Your task to perform on an android device: turn off notifications settings in the gmail app Image 0: 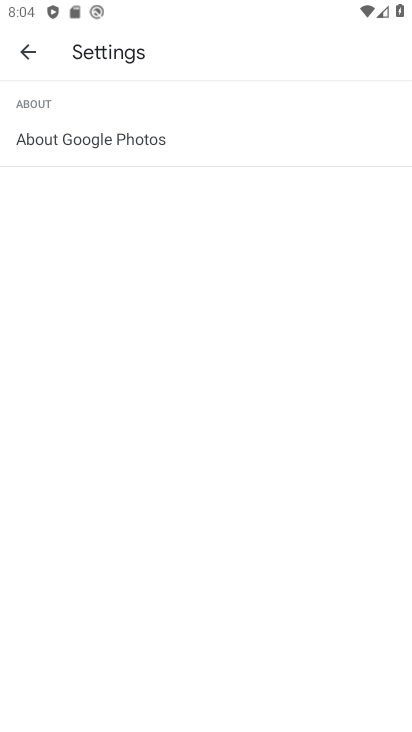
Step 0: drag from (194, 639) to (198, 600)
Your task to perform on an android device: turn off notifications settings in the gmail app Image 1: 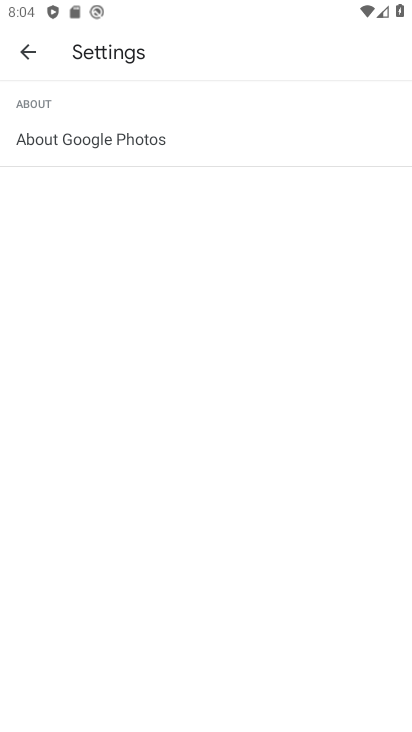
Step 1: press home button
Your task to perform on an android device: turn off notifications settings in the gmail app Image 2: 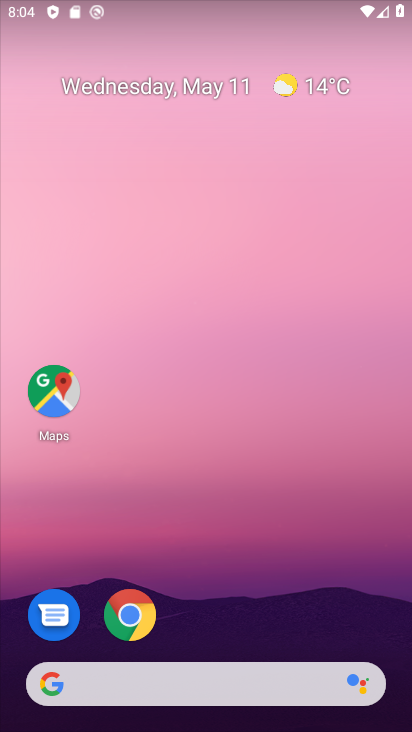
Step 2: drag from (204, 504) to (228, 202)
Your task to perform on an android device: turn off notifications settings in the gmail app Image 3: 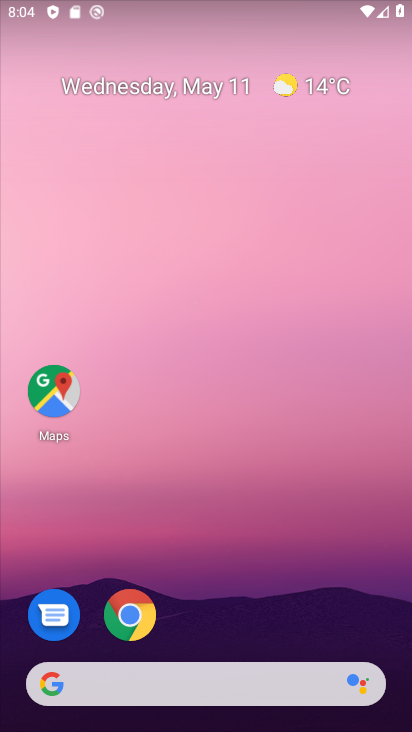
Step 3: drag from (255, 634) to (310, 164)
Your task to perform on an android device: turn off notifications settings in the gmail app Image 4: 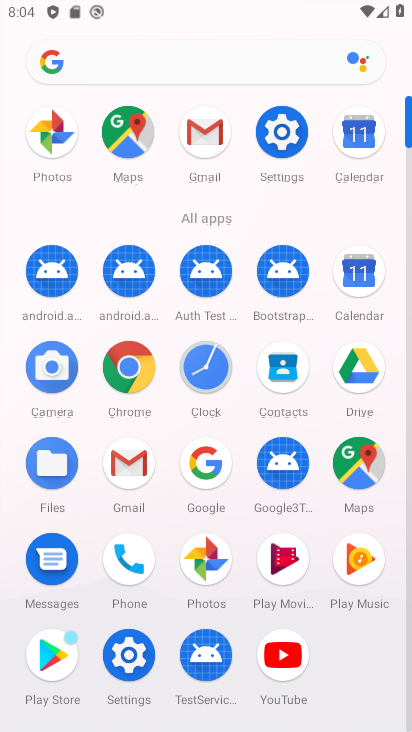
Step 4: click (198, 133)
Your task to perform on an android device: turn off notifications settings in the gmail app Image 5: 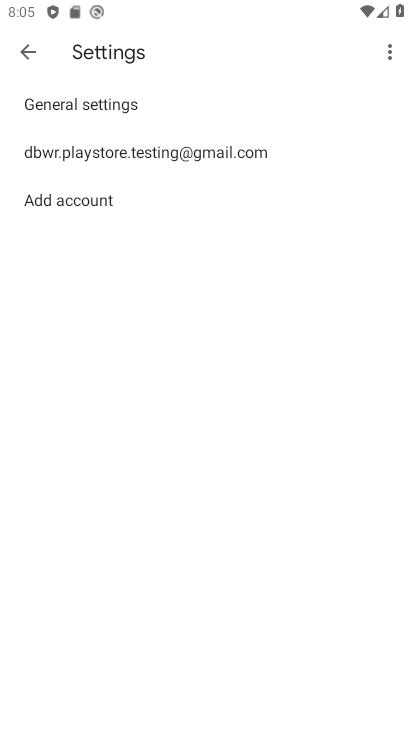
Step 5: click (162, 155)
Your task to perform on an android device: turn off notifications settings in the gmail app Image 6: 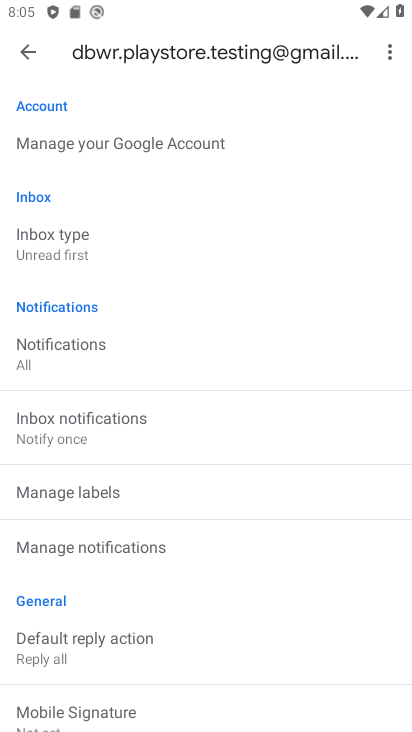
Step 6: click (94, 359)
Your task to perform on an android device: turn off notifications settings in the gmail app Image 7: 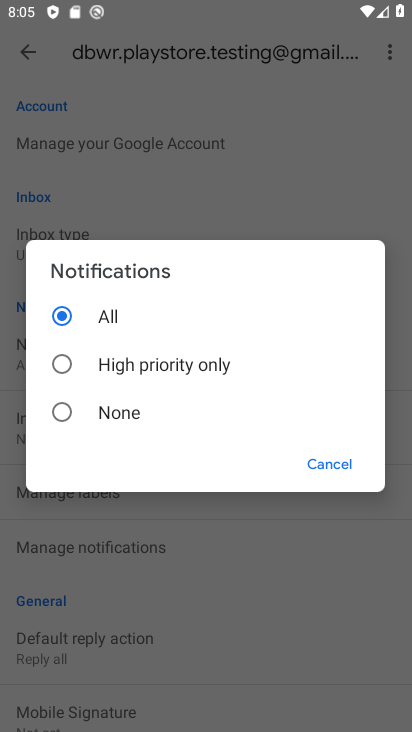
Step 7: click (140, 413)
Your task to perform on an android device: turn off notifications settings in the gmail app Image 8: 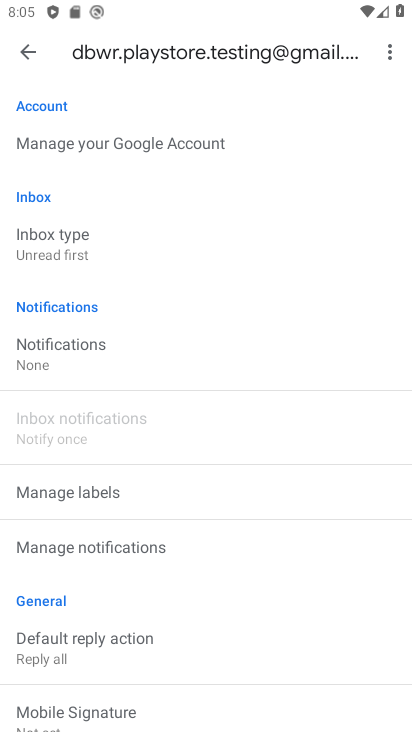
Step 8: task complete